Your task to perform on an android device: Open accessibility settings Image 0: 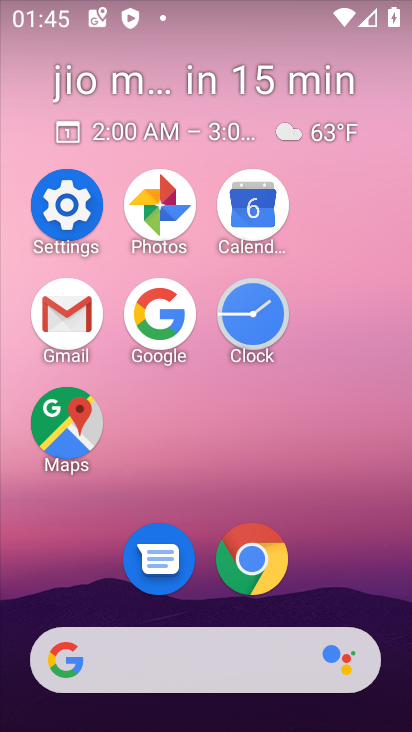
Step 0: click (88, 194)
Your task to perform on an android device: Open accessibility settings Image 1: 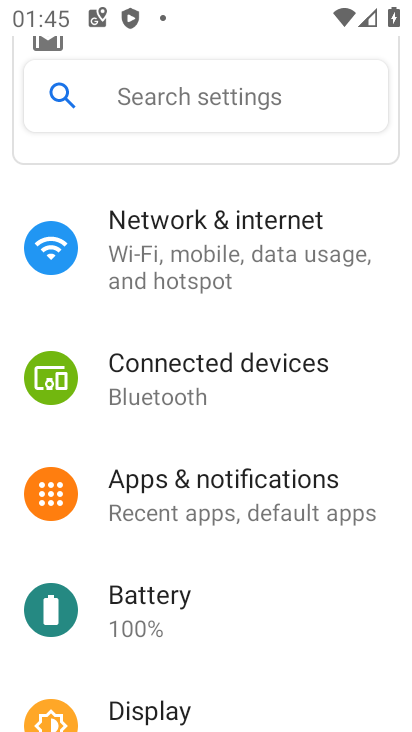
Step 1: drag from (264, 566) to (210, 75)
Your task to perform on an android device: Open accessibility settings Image 2: 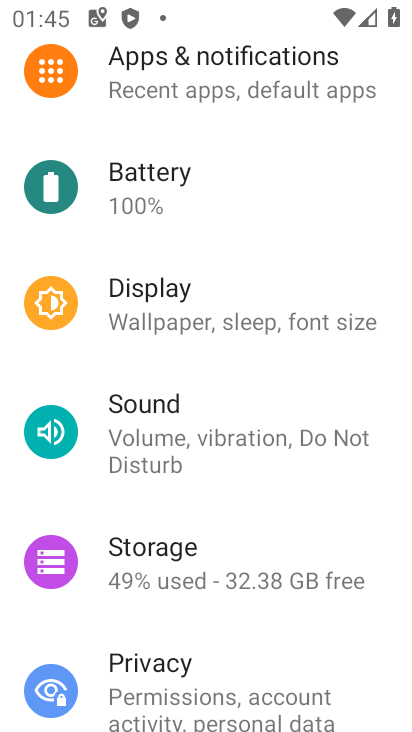
Step 2: drag from (253, 631) to (205, 196)
Your task to perform on an android device: Open accessibility settings Image 3: 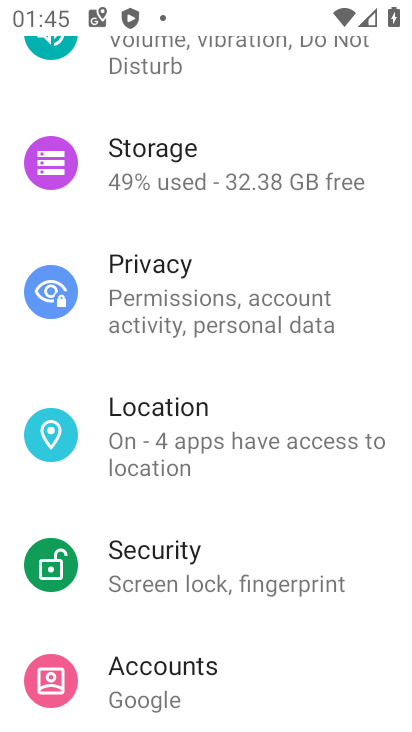
Step 3: drag from (209, 641) to (256, 155)
Your task to perform on an android device: Open accessibility settings Image 4: 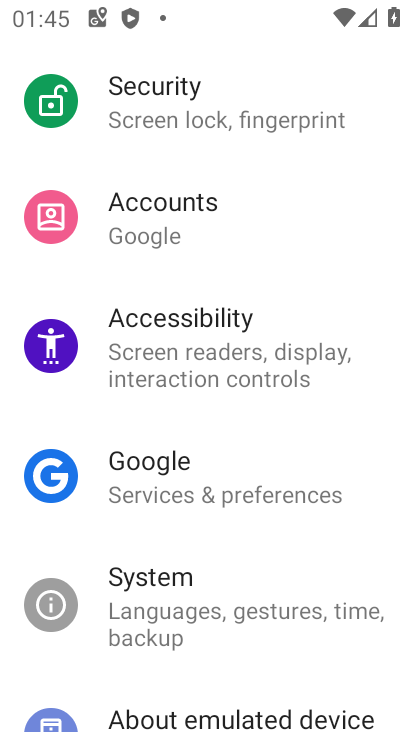
Step 4: click (261, 348)
Your task to perform on an android device: Open accessibility settings Image 5: 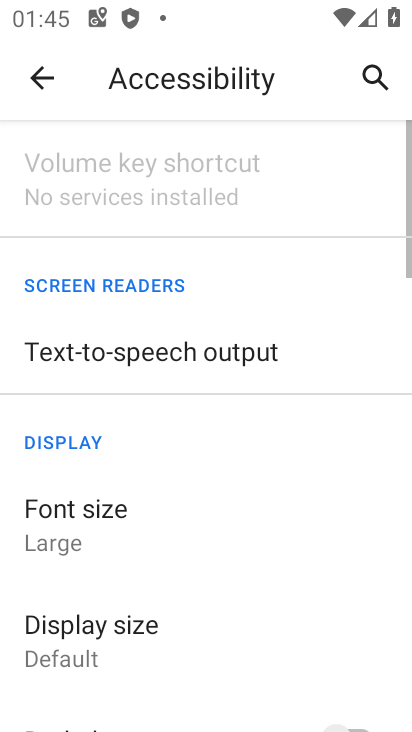
Step 5: task complete